Your task to perform on an android device: turn notification dots off Image 0: 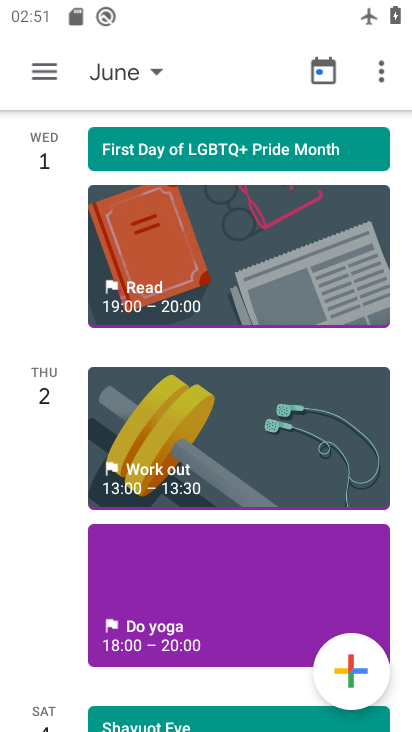
Step 0: press home button
Your task to perform on an android device: turn notification dots off Image 1: 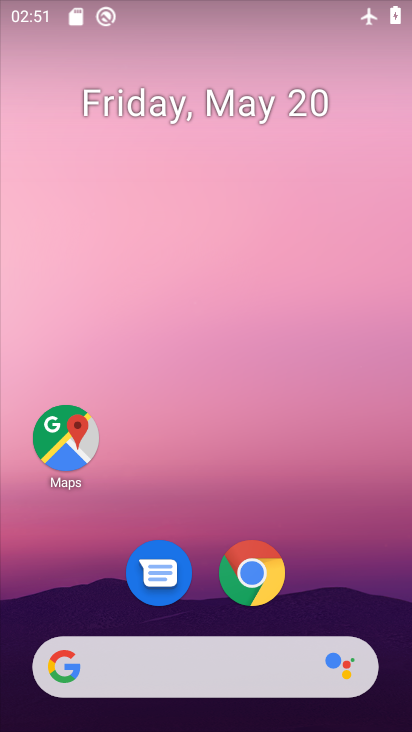
Step 1: drag from (210, 622) to (213, 185)
Your task to perform on an android device: turn notification dots off Image 2: 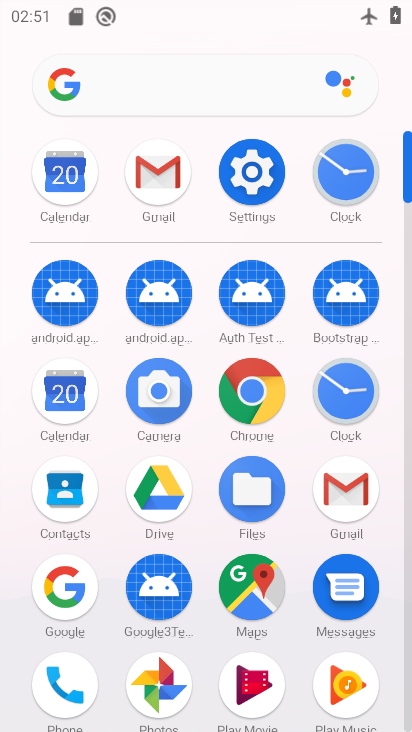
Step 2: click (255, 185)
Your task to perform on an android device: turn notification dots off Image 3: 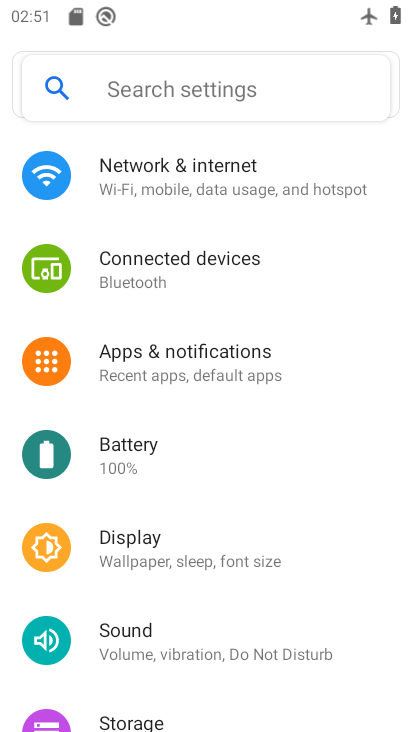
Step 3: click (199, 369)
Your task to perform on an android device: turn notification dots off Image 4: 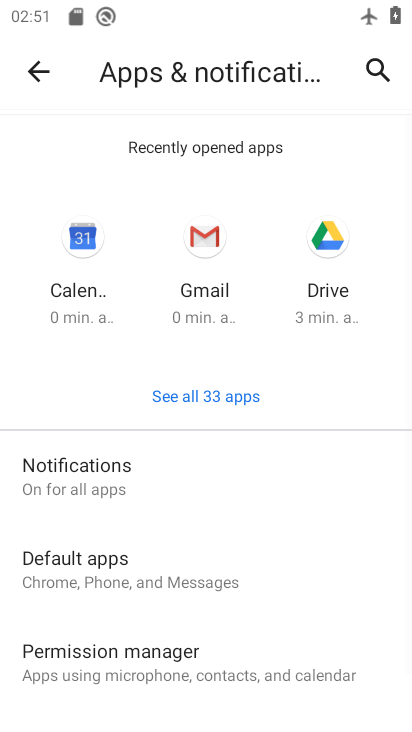
Step 4: click (108, 495)
Your task to perform on an android device: turn notification dots off Image 5: 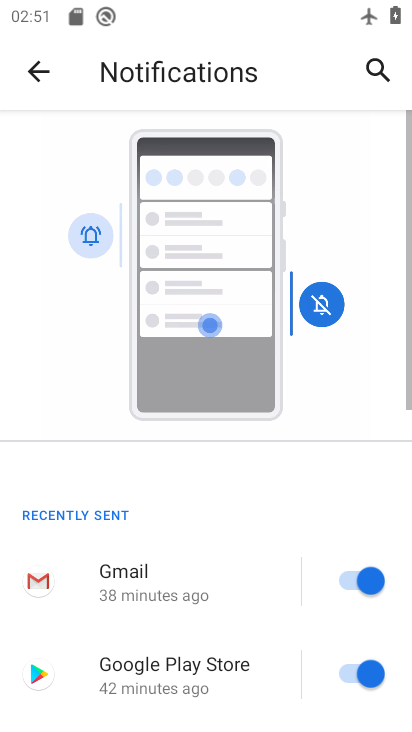
Step 5: drag from (182, 612) to (230, 337)
Your task to perform on an android device: turn notification dots off Image 6: 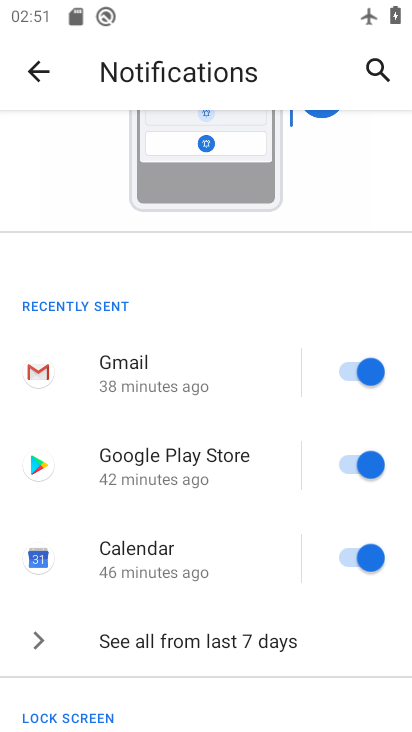
Step 6: drag from (195, 546) to (231, 313)
Your task to perform on an android device: turn notification dots off Image 7: 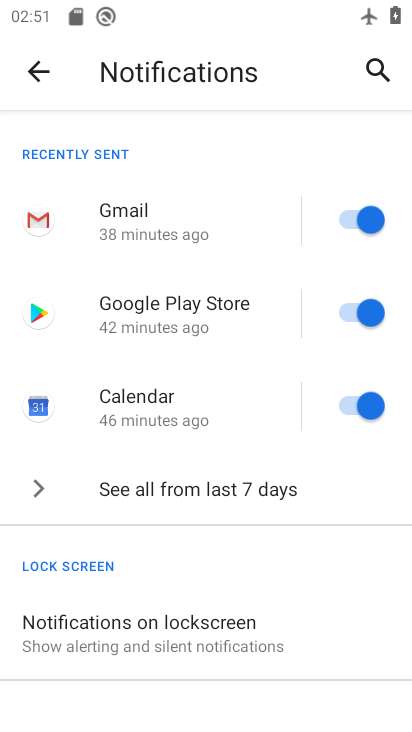
Step 7: drag from (195, 664) to (232, 422)
Your task to perform on an android device: turn notification dots off Image 8: 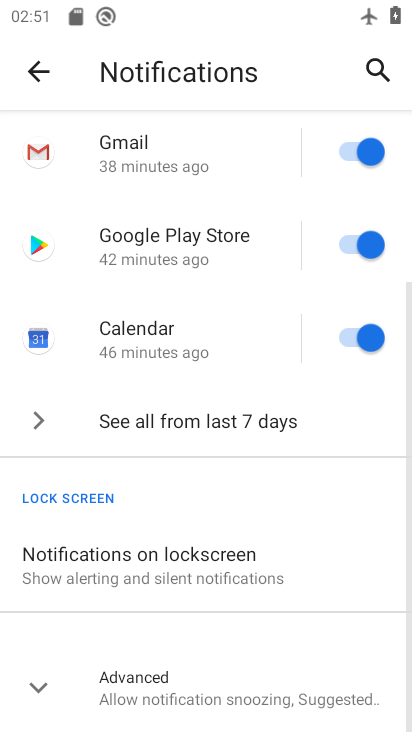
Step 8: click (177, 678)
Your task to perform on an android device: turn notification dots off Image 9: 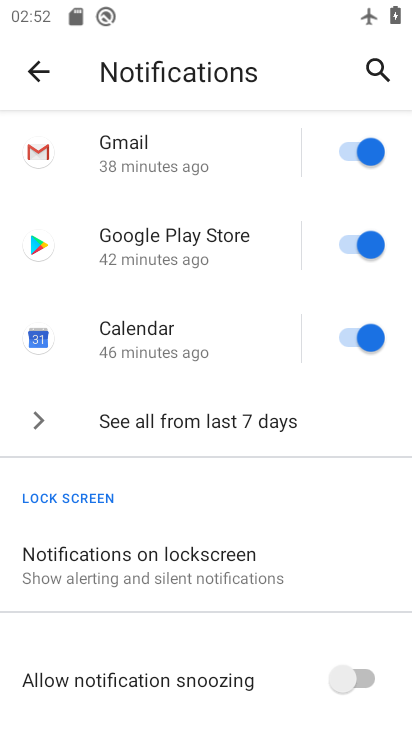
Step 9: task complete